Your task to perform on an android device: install app "DoorDash - Dasher" Image 0: 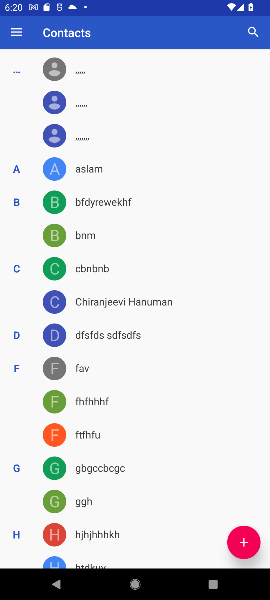
Step 0: press home button
Your task to perform on an android device: install app "DoorDash - Dasher" Image 1: 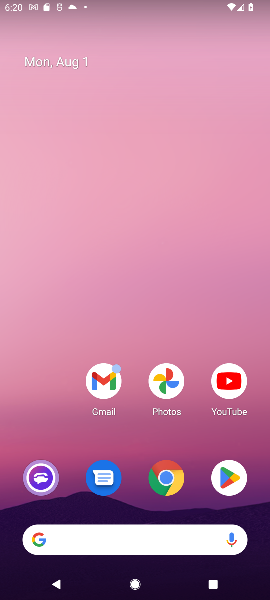
Step 1: click (219, 486)
Your task to perform on an android device: install app "DoorDash - Dasher" Image 2: 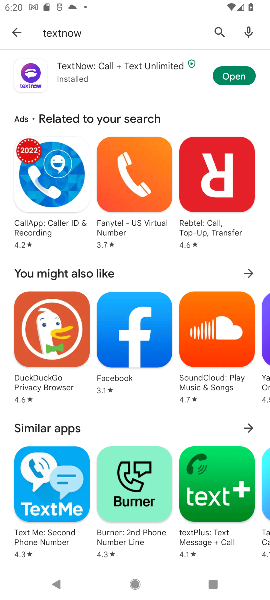
Step 2: click (217, 32)
Your task to perform on an android device: install app "DoorDash - Dasher" Image 3: 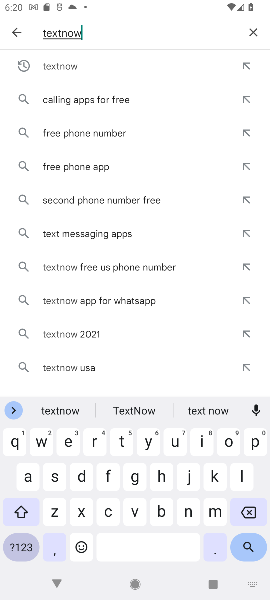
Step 3: click (249, 30)
Your task to perform on an android device: install app "DoorDash - Dasher" Image 4: 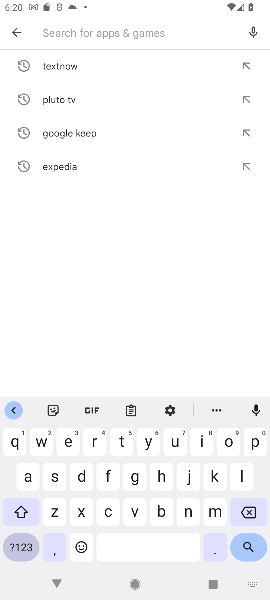
Step 4: click (80, 478)
Your task to perform on an android device: install app "DoorDash - Dasher" Image 5: 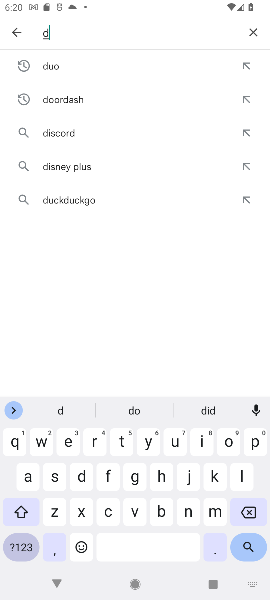
Step 5: click (91, 102)
Your task to perform on an android device: install app "DoorDash - Dasher" Image 6: 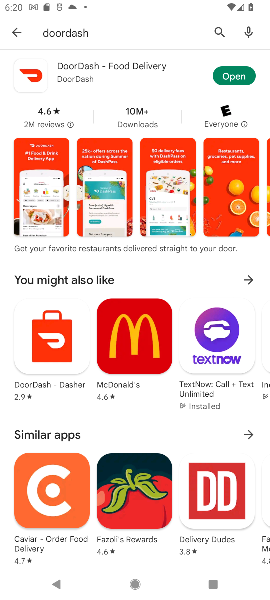
Step 6: click (238, 72)
Your task to perform on an android device: install app "DoorDash - Dasher" Image 7: 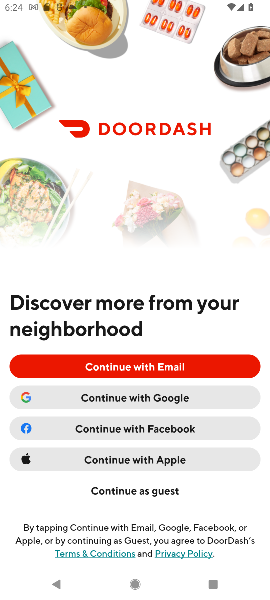
Step 7: task complete